Your task to perform on an android device: show emergency info Image 0: 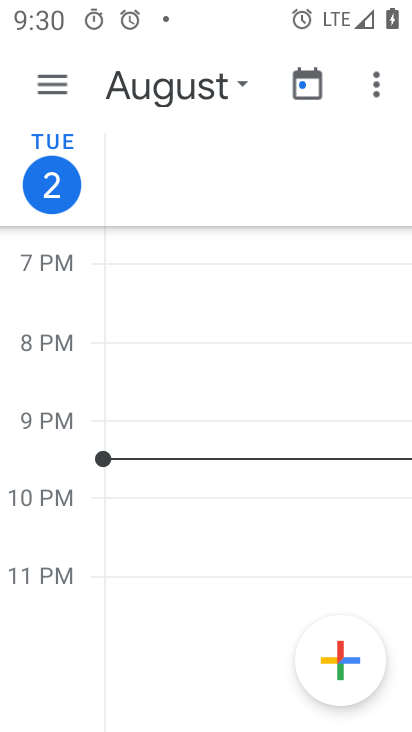
Step 0: press home button
Your task to perform on an android device: show emergency info Image 1: 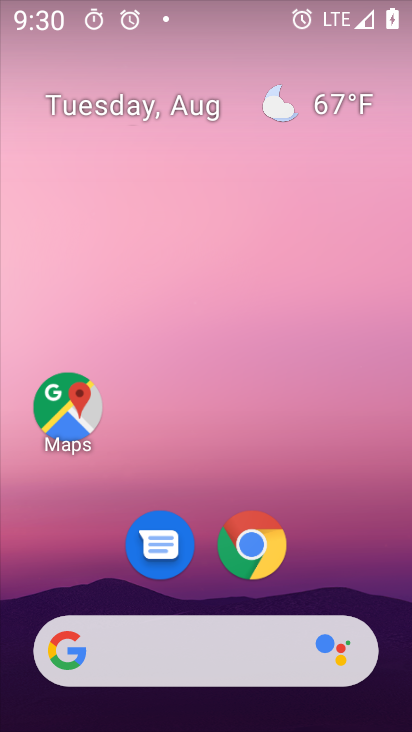
Step 1: drag from (267, 603) to (268, 151)
Your task to perform on an android device: show emergency info Image 2: 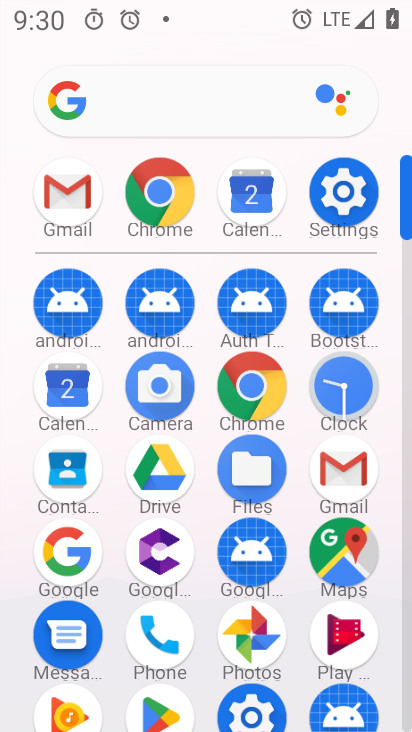
Step 2: click (346, 222)
Your task to perform on an android device: show emergency info Image 3: 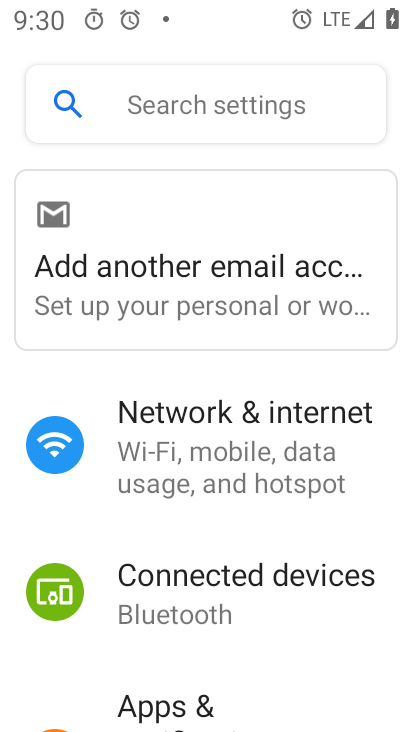
Step 3: drag from (255, 599) to (282, 53)
Your task to perform on an android device: show emergency info Image 4: 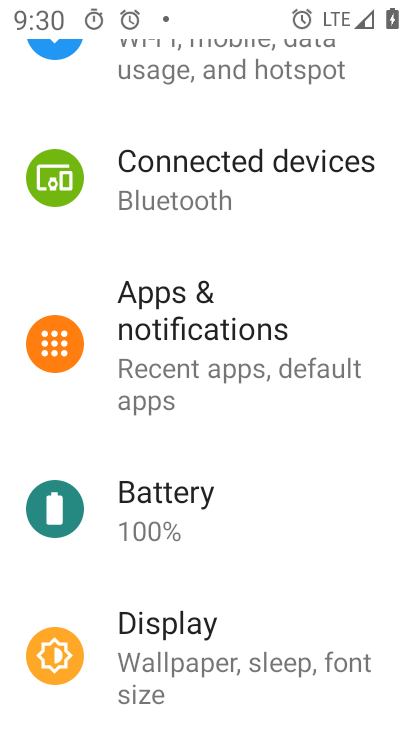
Step 4: drag from (215, 474) to (257, 44)
Your task to perform on an android device: show emergency info Image 5: 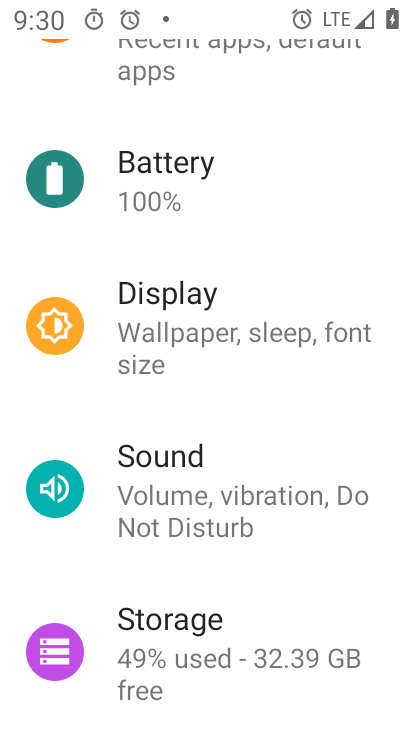
Step 5: drag from (202, 512) to (260, 23)
Your task to perform on an android device: show emergency info Image 6: 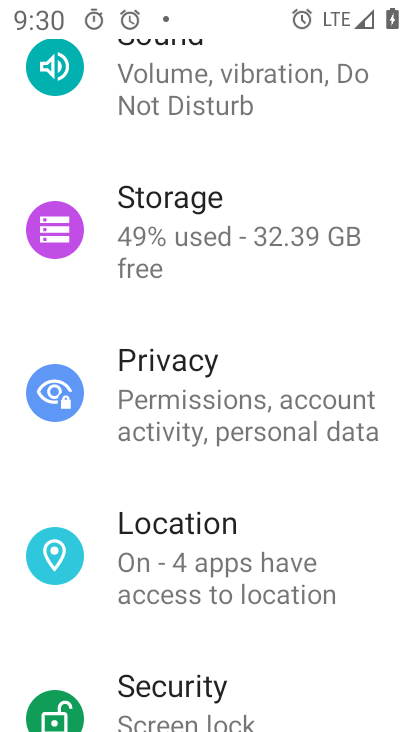
Step 6: drag from (229, 594) to (304, 99)
Your task to perform on an android device: show emergency info Image 7: 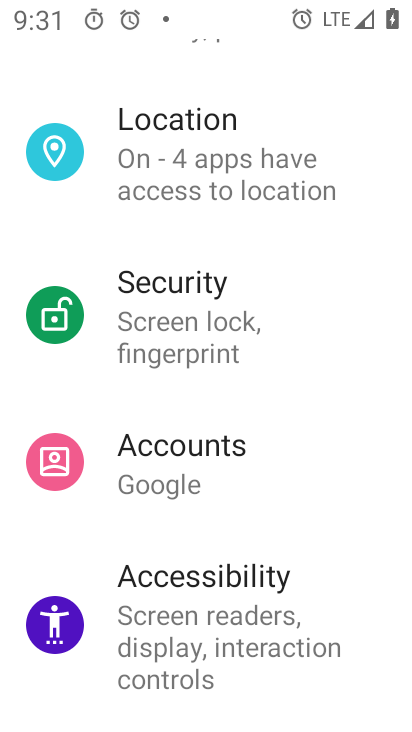
Step 7: drag from (271, 624) to (324, 168)
Your task to perform on an android device: show emergency info Image 8: 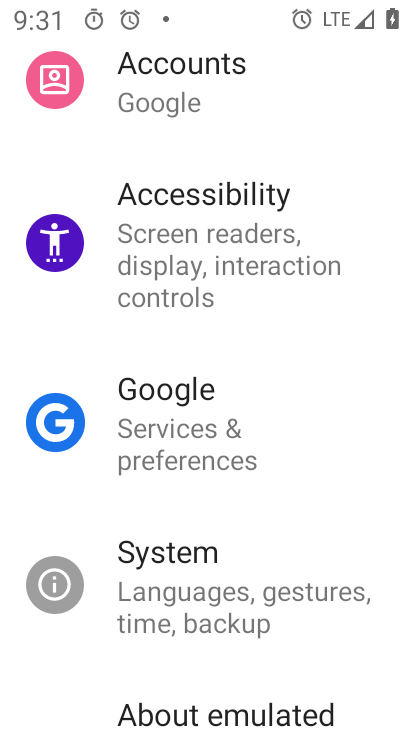
Step 8: drag from (217, 616) to (225, 12)
Your task to perform on an android device: show emergency info Image 9: 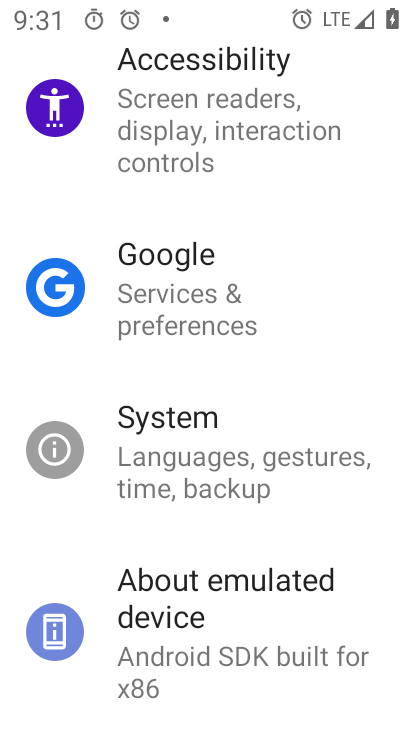
Step 9: click (263, 644)
Your task to perform on an android device: show emergency info Image 10: 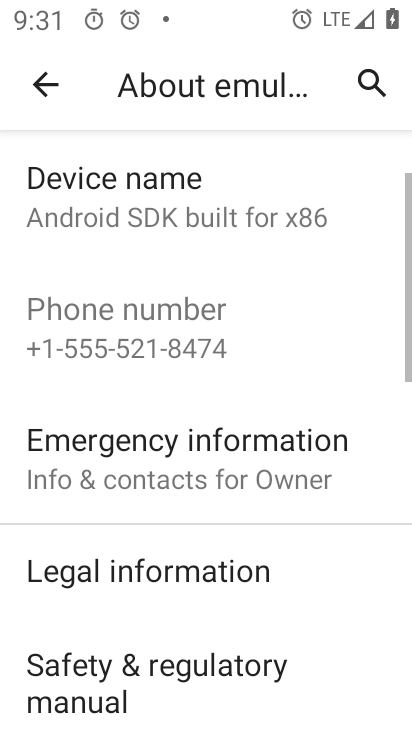
Step 10: click (222, 475)
Your task to perform on an android device: show emergency info Image 11: 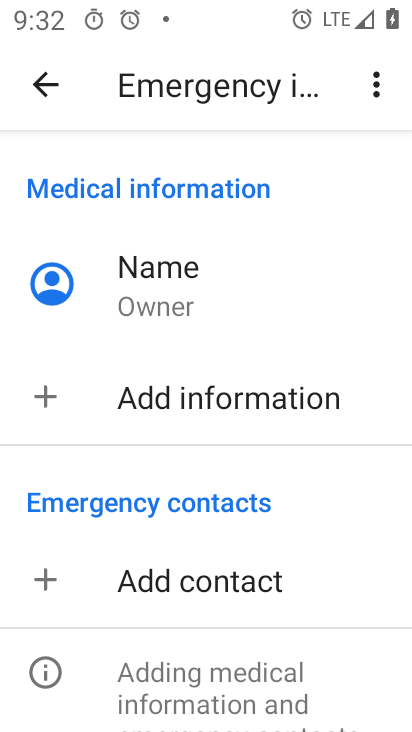
Step 11: task complete